Your task to perform on an android device: snooze an email in the gmail app Image 0: 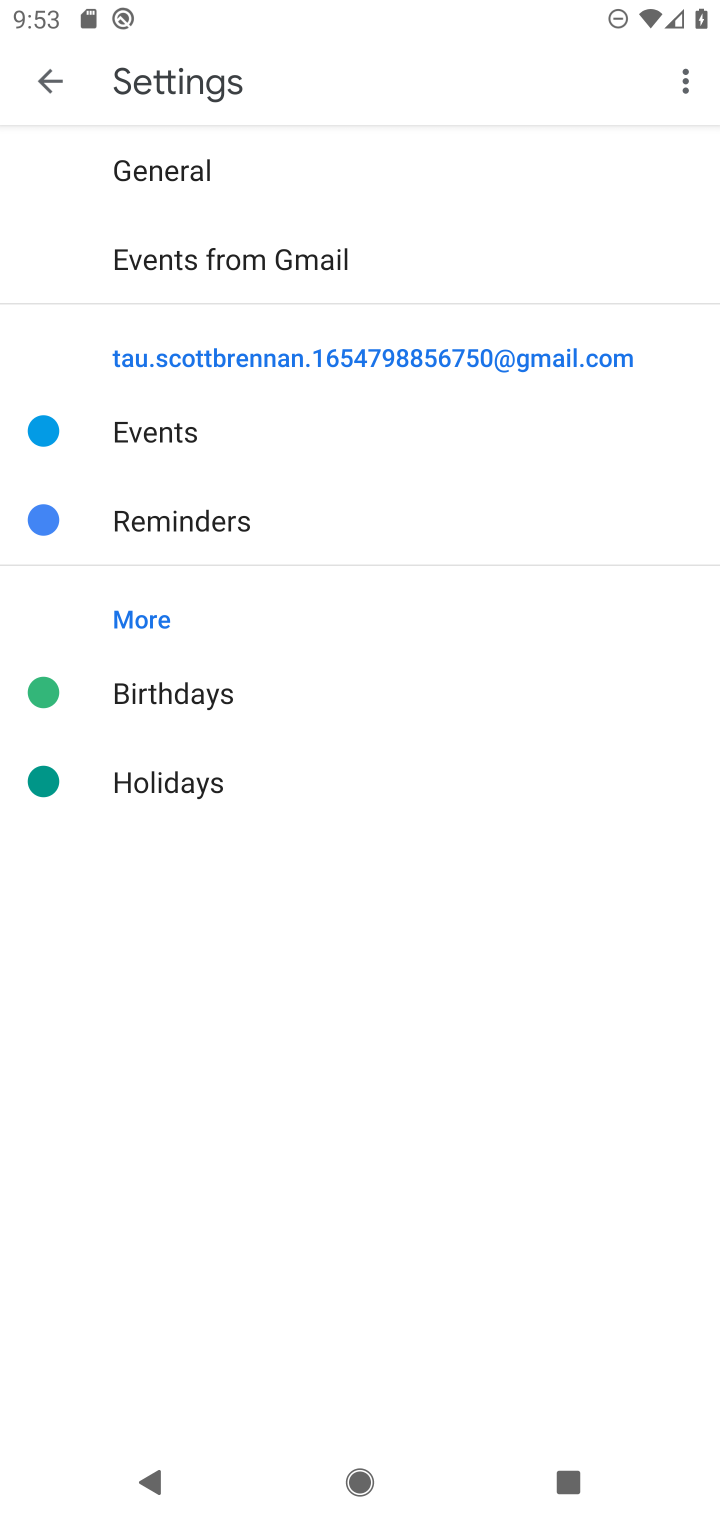
Step 0: press home button
Your task to perform on an android device: snooze an email in the gmail app Image 1: 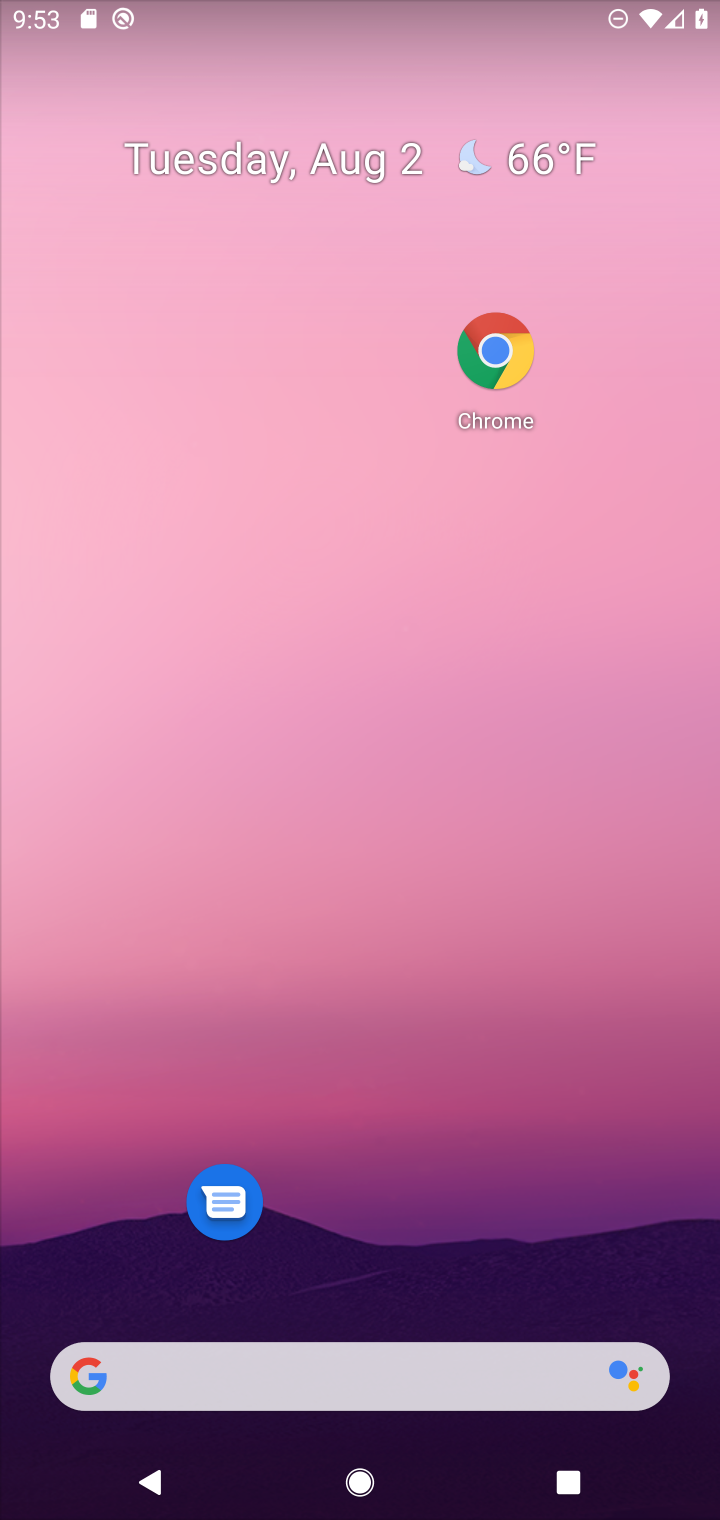
Step 1: drag from (404, 1291) to (333, 56)
Your task to perform on an android device: snooze an email in the gmail app Image 2: 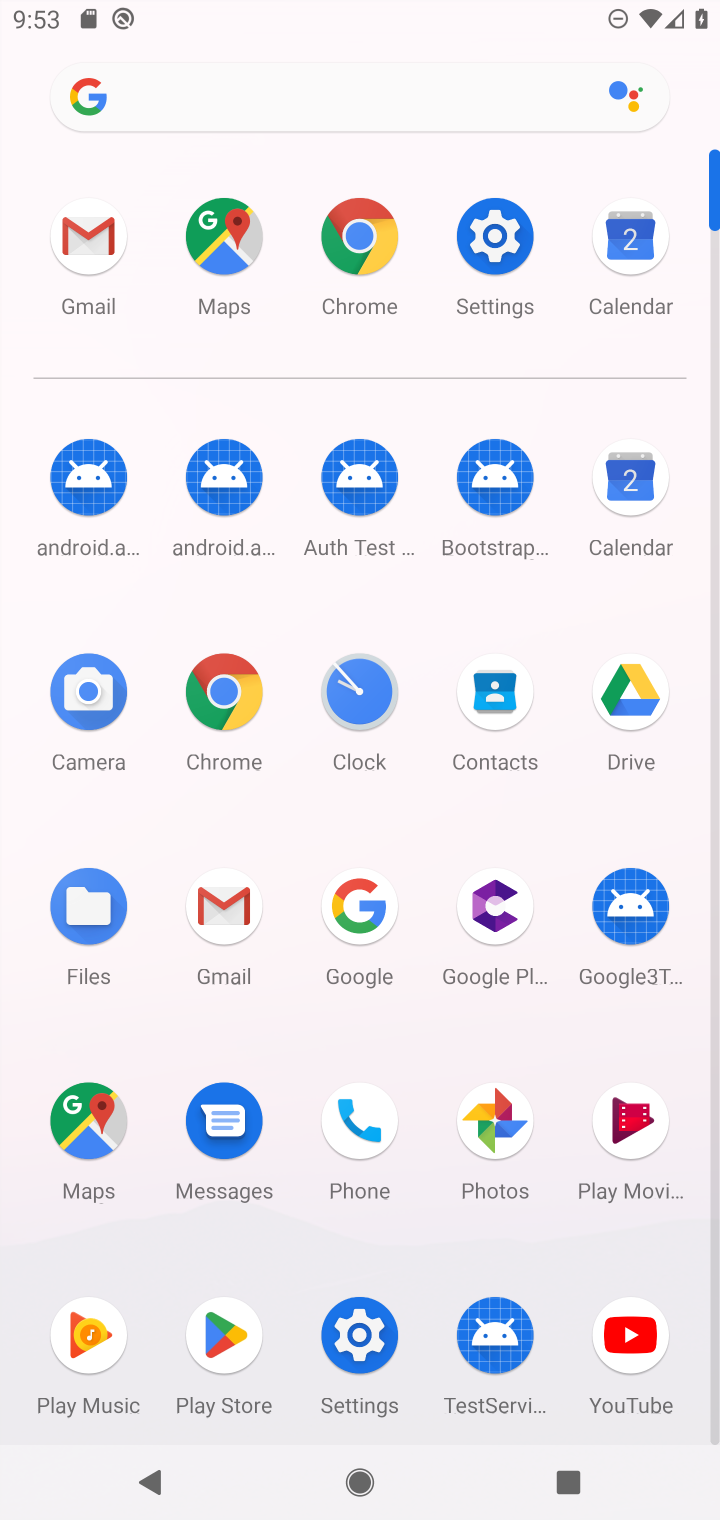
Step 2: click (78, 255)
Your task to perform on an android device: snooze an email in the gmail app Image 3: 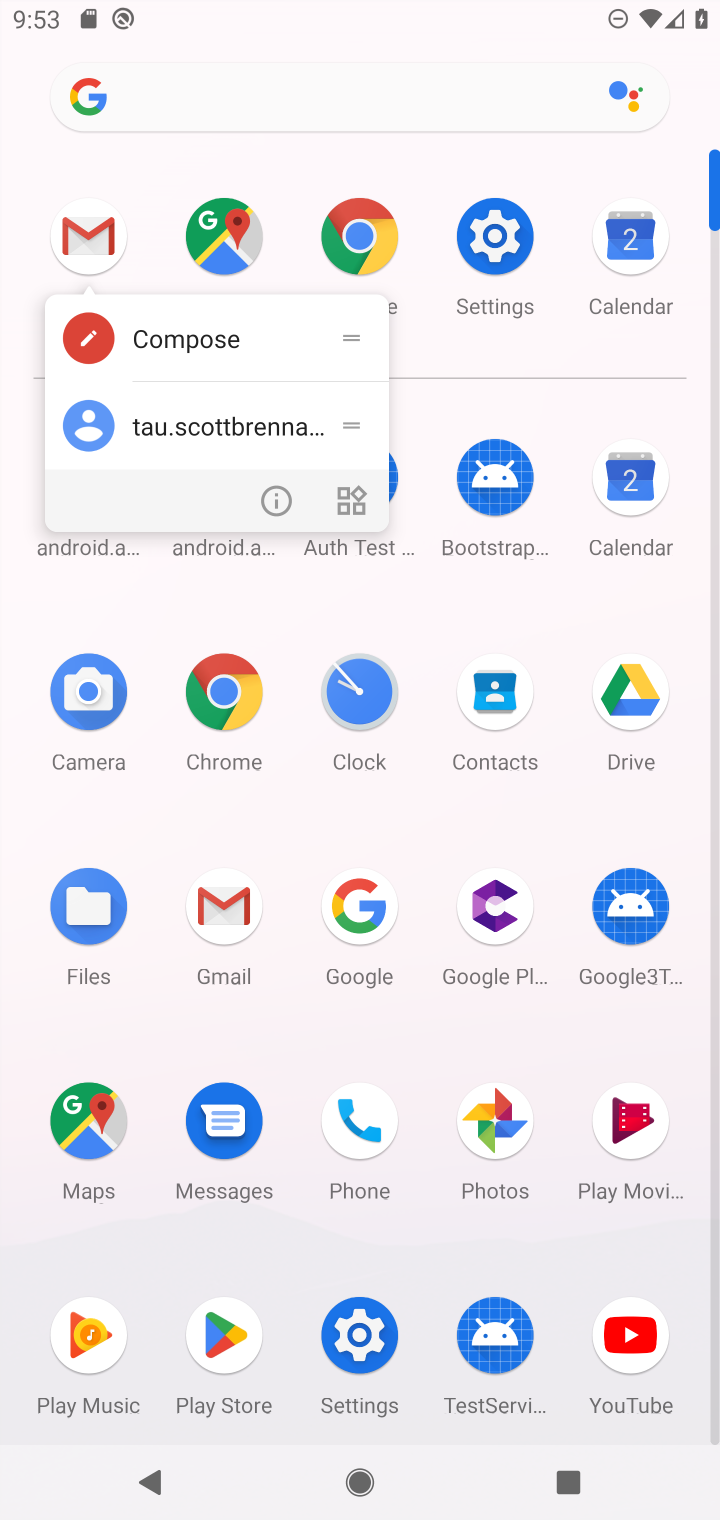
Step 3: click (91, 240)
Your task to perform on an android device: snooze an email in the gmail app Image 4: 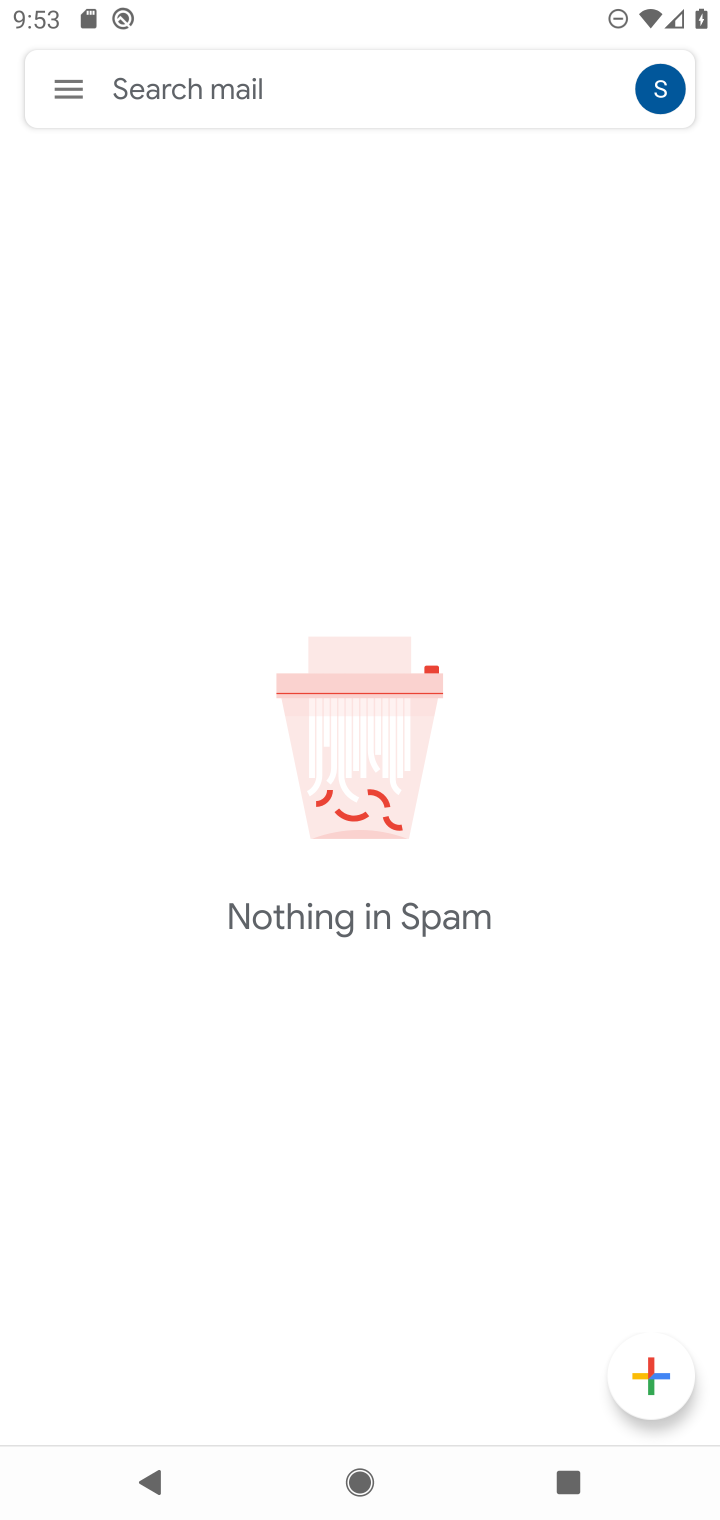
Step 4: click (56, 93)
Your task to perform on an android device: snooze an email in the gmail app Image 5: 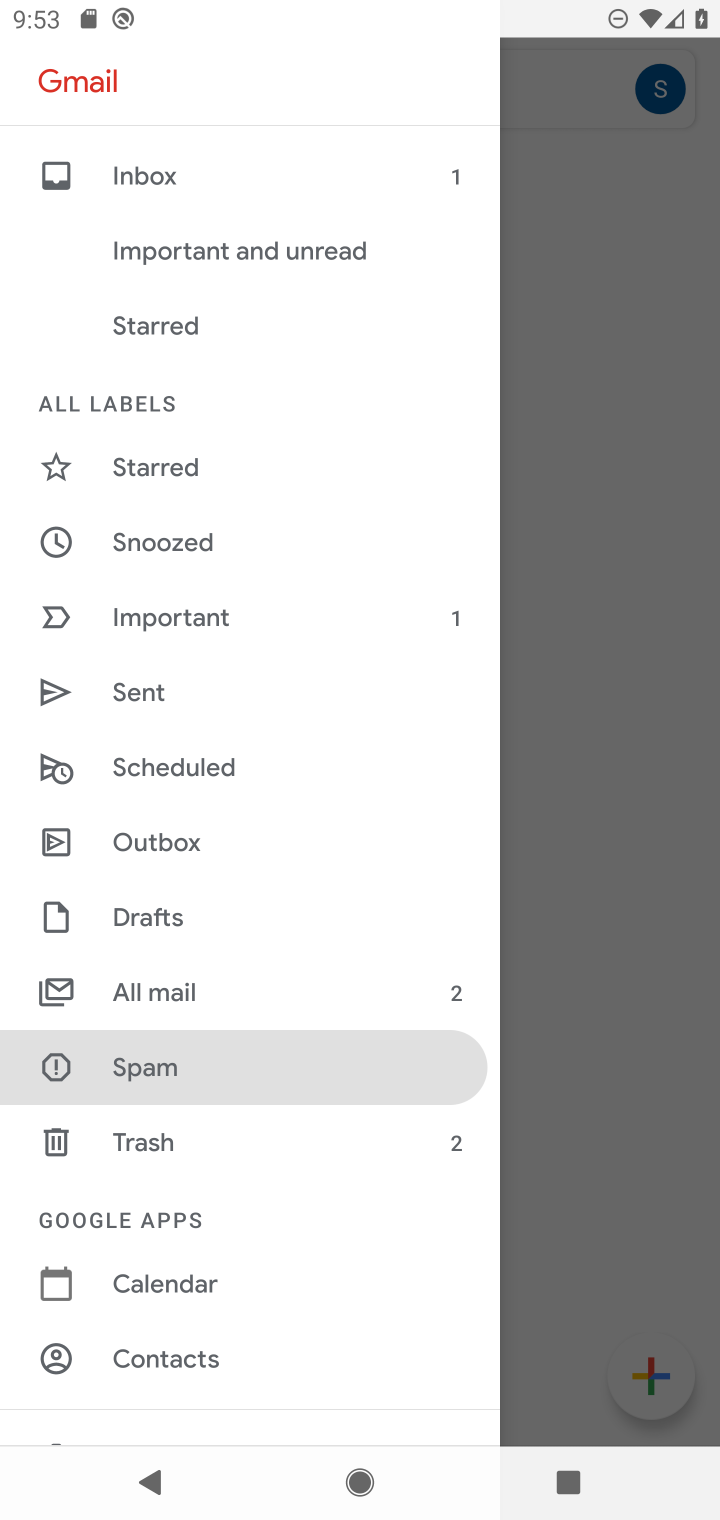
Step 5: click (144, 986)
Your task to perform on an android device: snooze an email in the gmail app Image 6: 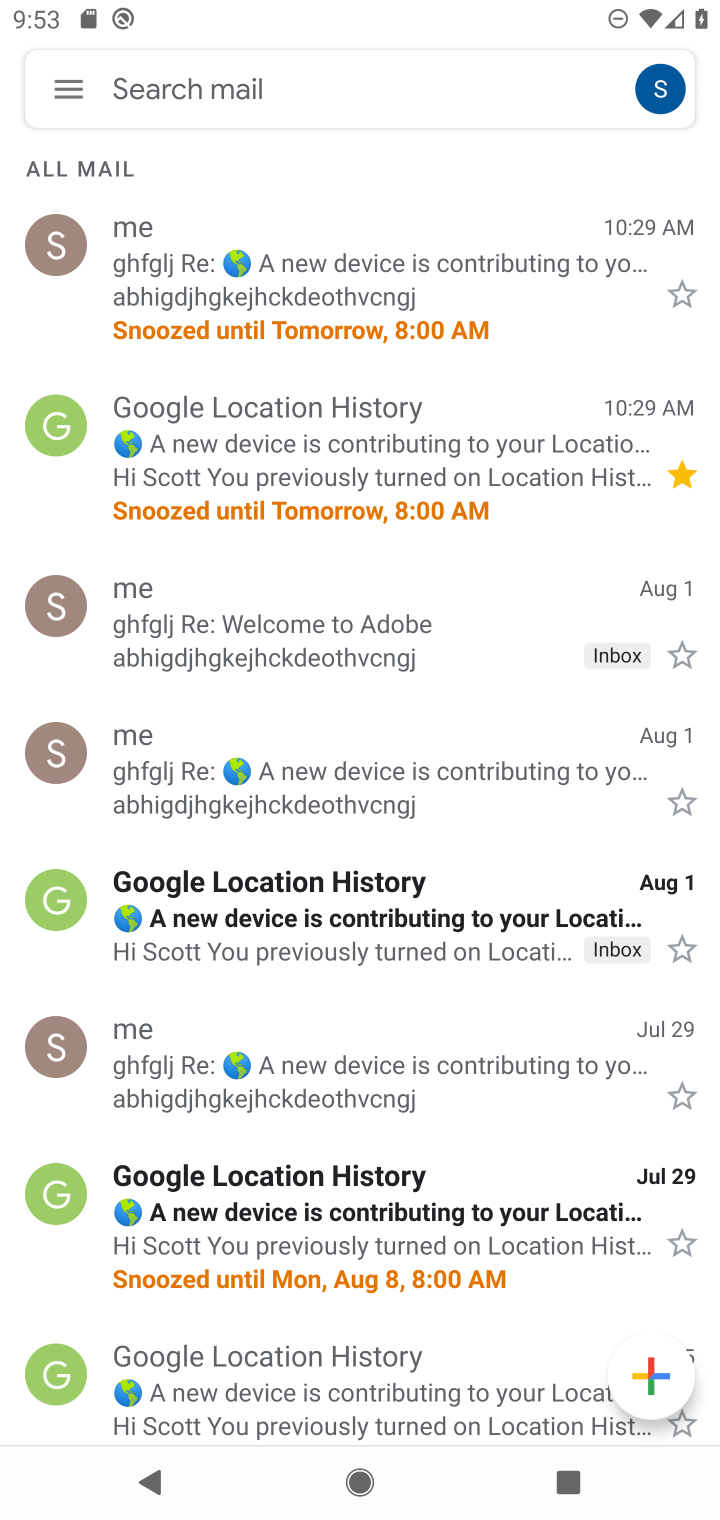
Step 6: click (240, 662)
Your task to perform on an android device: snooze an email in the gmail app Image 7: 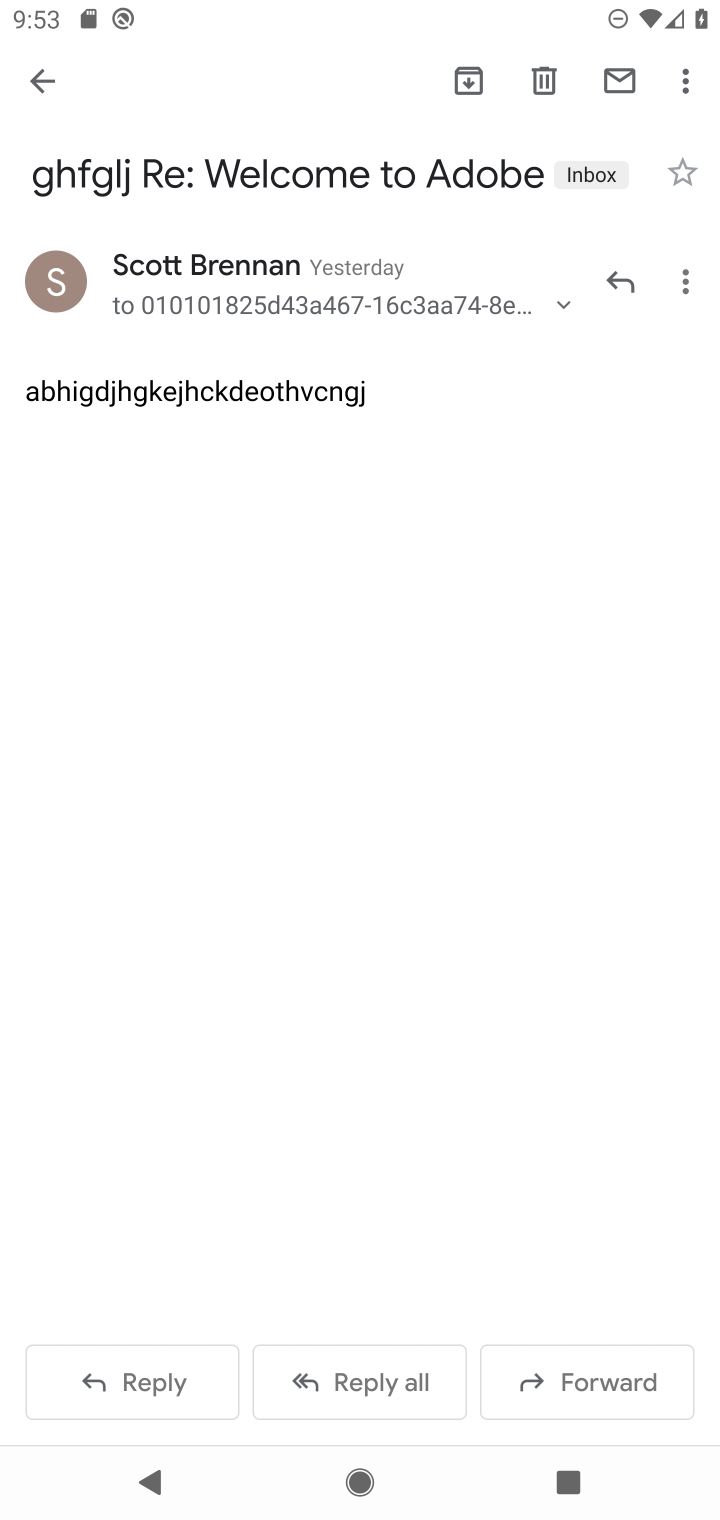
Step 7: click (691, 78)
Your task to perform on an android device: snooze an email in the gmail app Image 8: 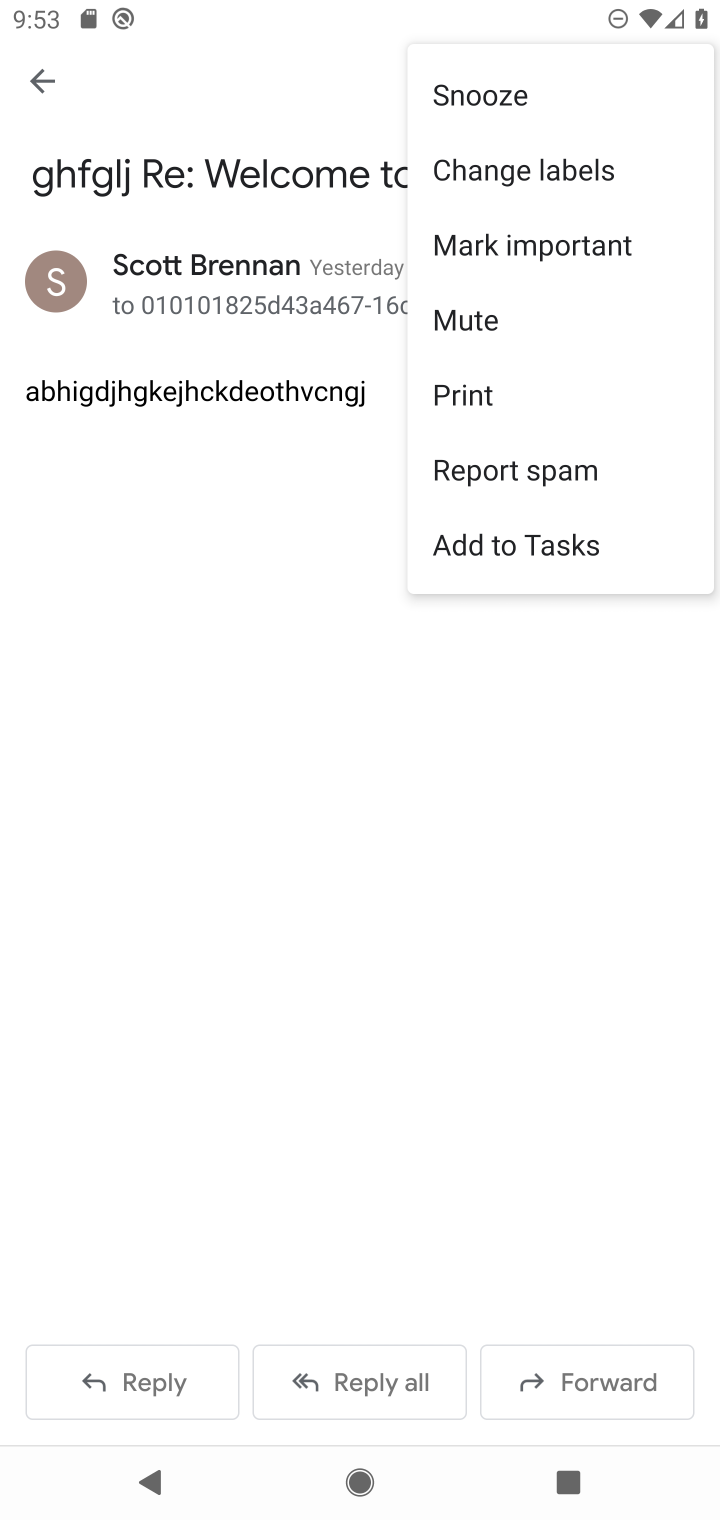
Step 8: click (493, 109)
Your task to perform on an android device: snooze an email in the gmail app Image 9: 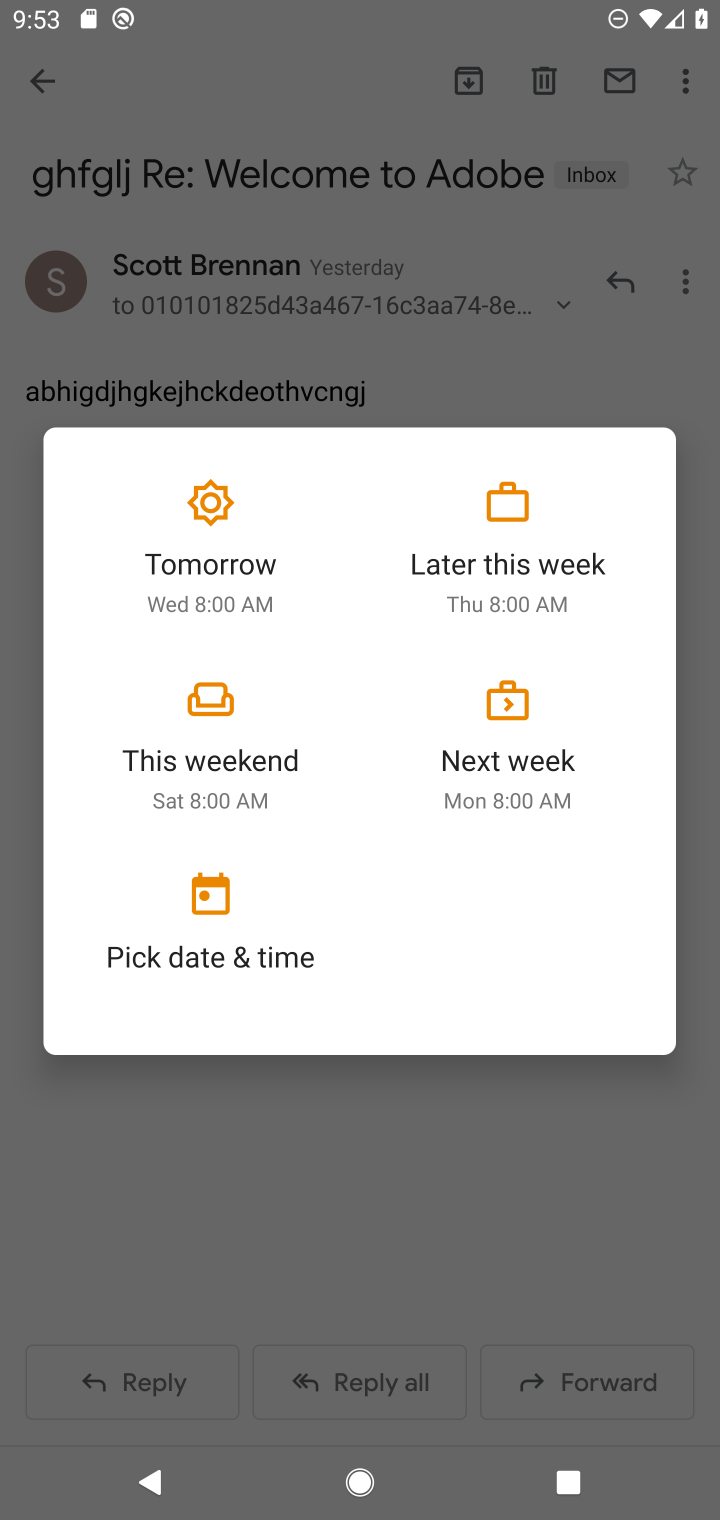
Step 9: click (214, 546)
Your task to perform on an android device: snooze an email in the gmail app Image 10: 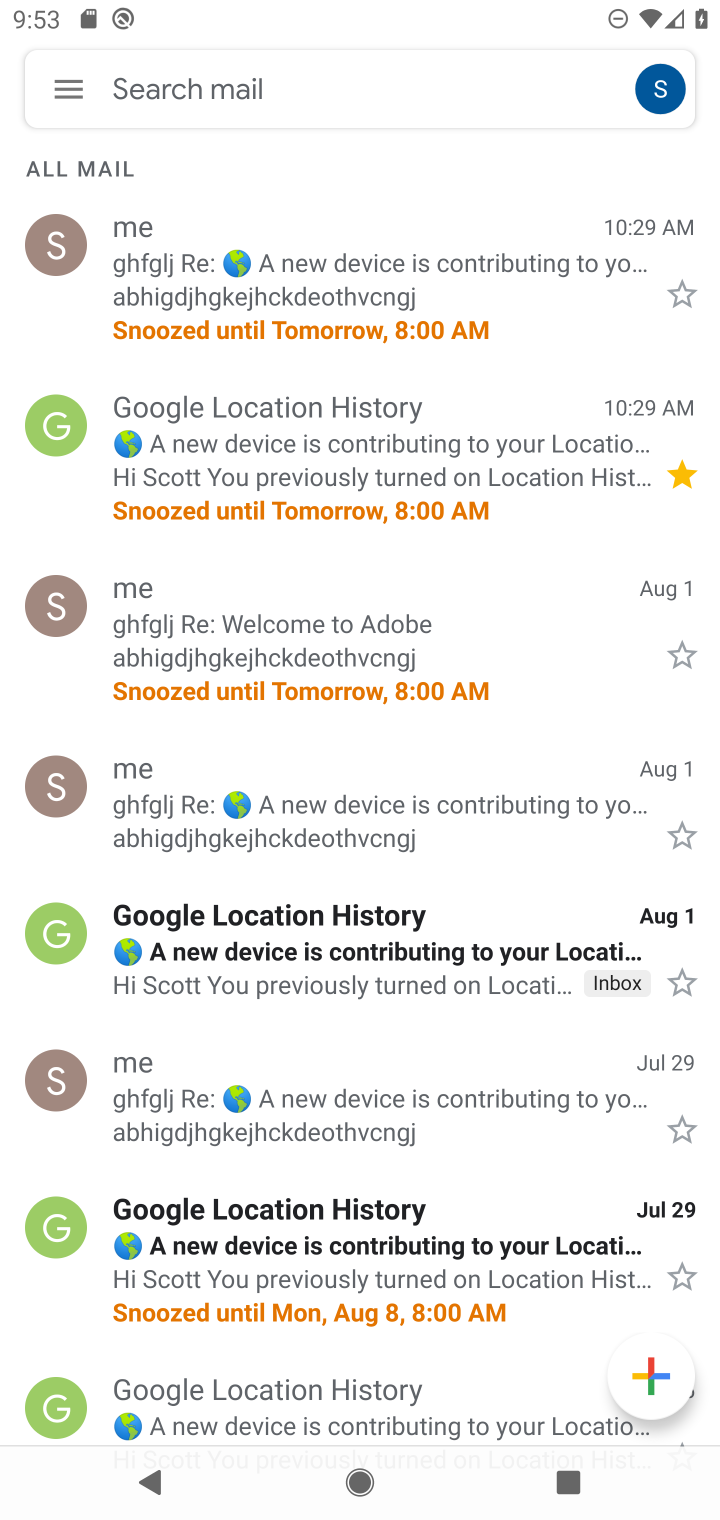
Step 10: task complete